Your task to perform on an android device: Go to Google maps Image 0: 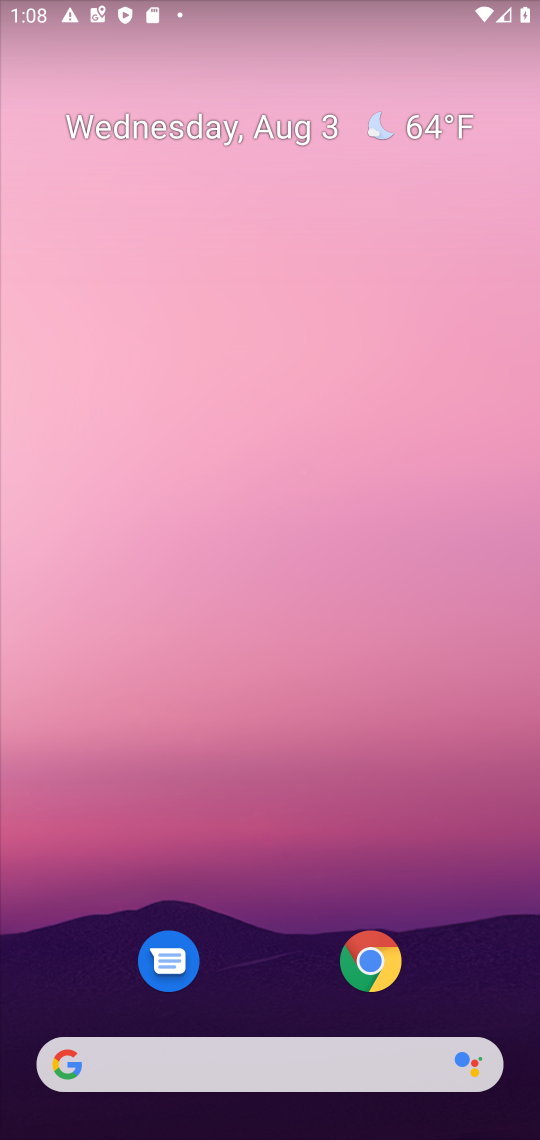
Step 0: drag from (276, 971) to (311, 33)
Your task to perform on an android device: Go to Google maps Image 1: 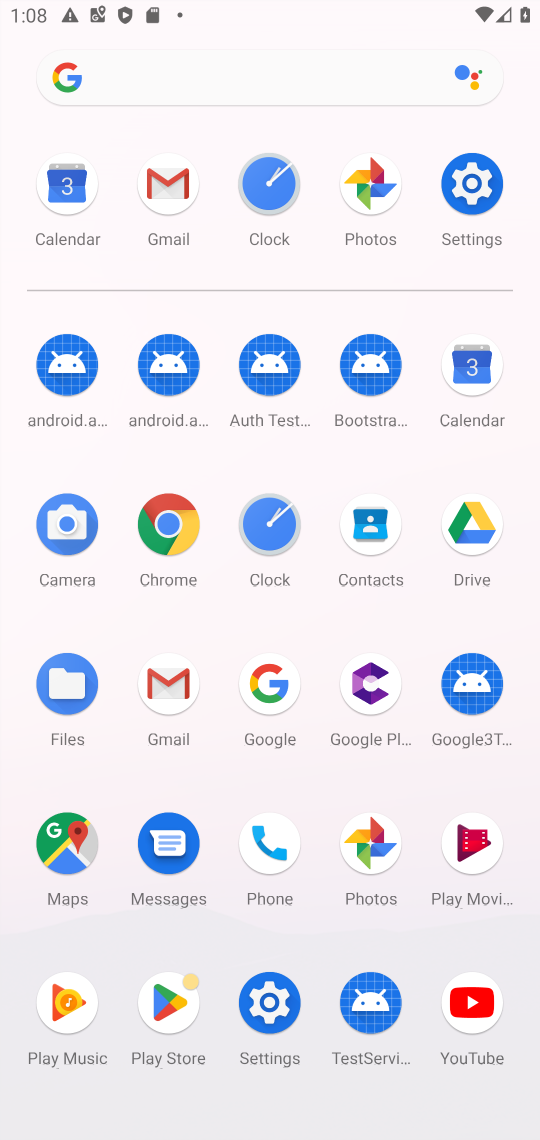
Step 1: click (65, 842)
Your task to perform on an android device: Go to Google maps Image 2: 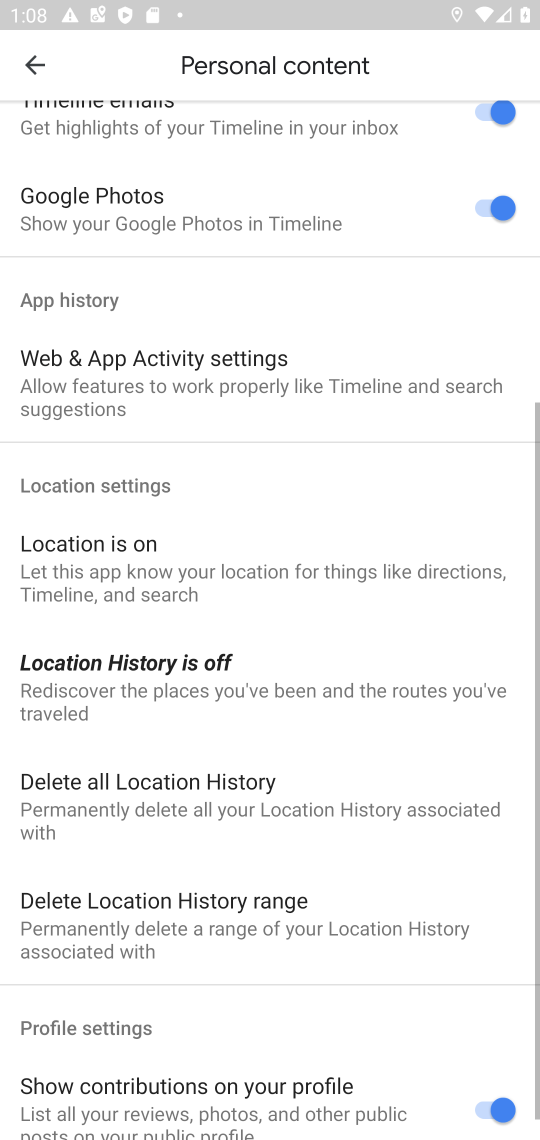
Step 2: task complete